Your task to perform on an android device: Turn on the flashlight Image 0: 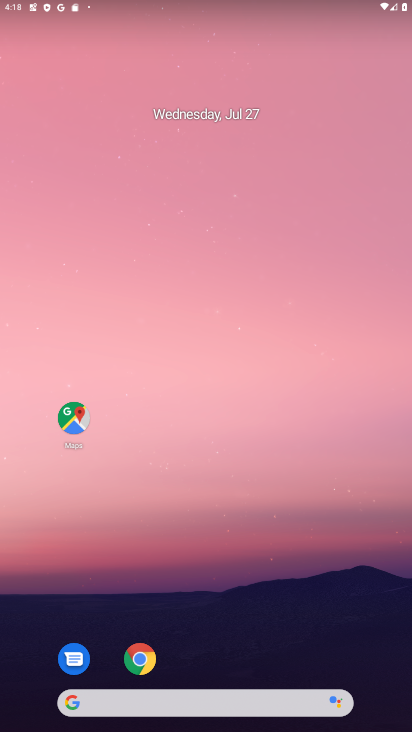
Step 0: drag from (280, 635) to (255, 539)
Your task to perform on an android device: Turn on the flashlight Image 1: 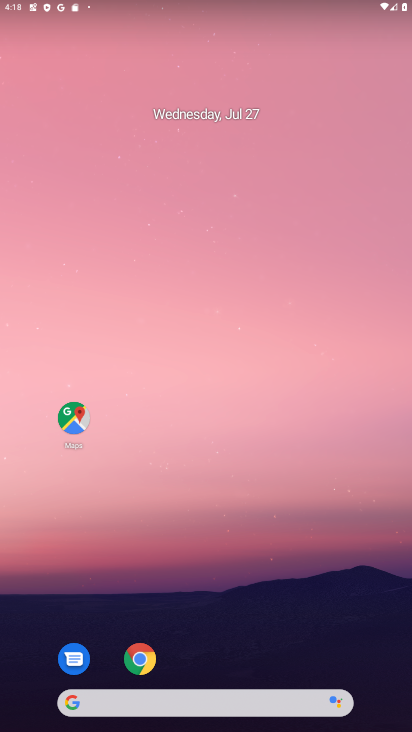
Step 1: drag from (333, 7) to (323, 353)
Your task to perform on an android device: Turn on the flashlight Image 2: 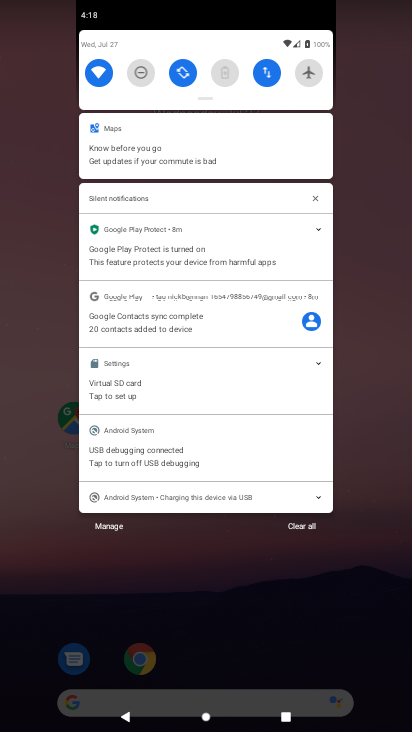
Step 2: drag from (196, 88) to (182, 588)
Your task to perform on an android device: Turn on the flashlight Image 3: 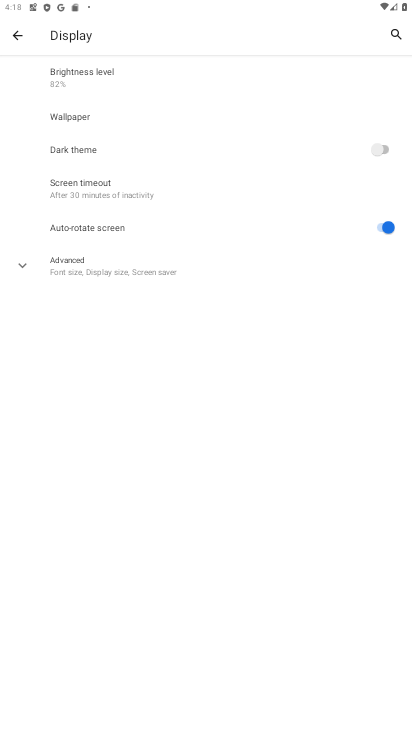
Step 3: drag from (217, 4) to (257, 385)
Your task to perform on an android device: Turn on the flashlight Image 4: 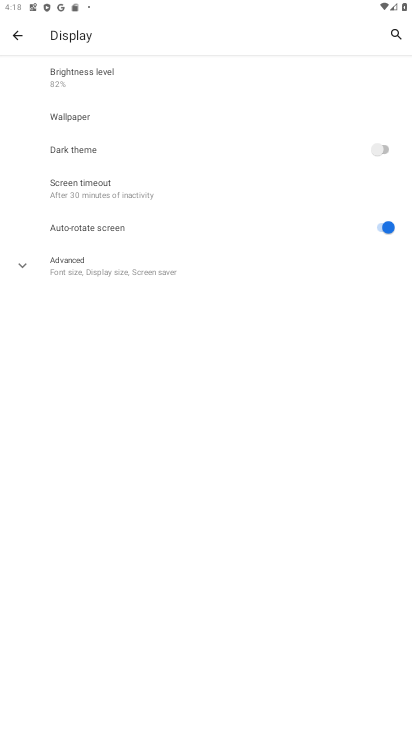
Step 4: press home button
Your task to perform on an android device: Turn on the flashlight Image 5: 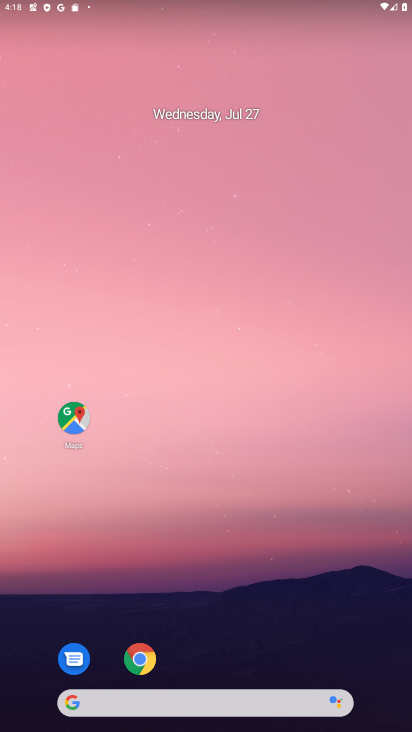
Step 5: drag from (279, 5) to (353, 532)
Your task to perform on an android device: Turn on the flashlight Image 6: 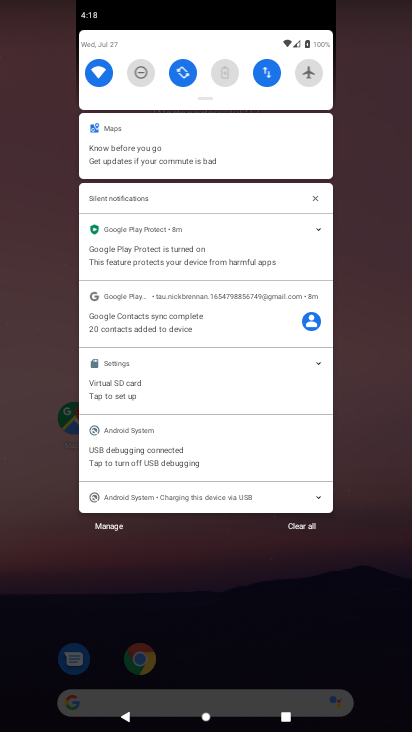
Step 6: drag from (206, 82) to (231, 455)
Your task to perform on an android device: Turn on the flashlight Image 7: 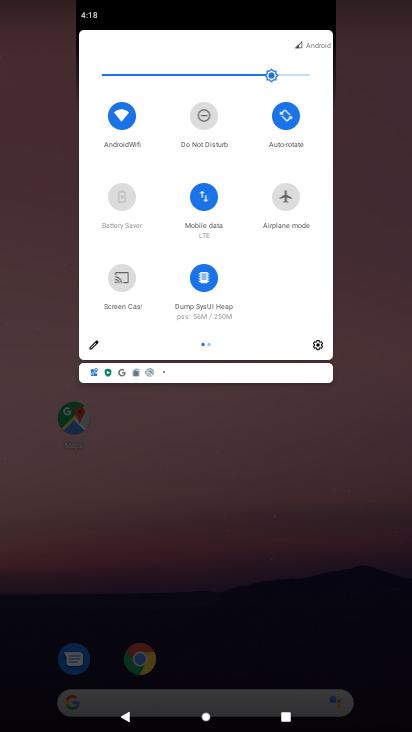
Step 7: click (100, 351)
Your task to perform on an android device: Turn on the flashlight Image 8: 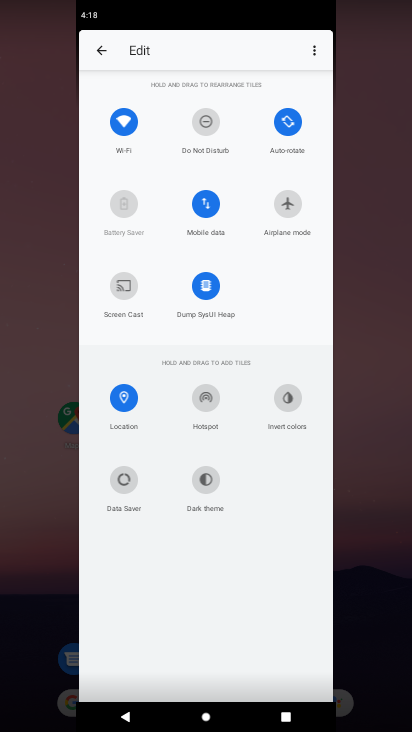
Step 8: task complete